Your task to perform on an android device: Open the web browser Image 0: 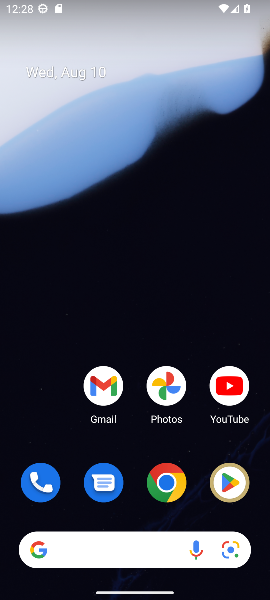
Step 0: click (174, 487)
Your task to perform on an android device: Open the web browser Image 1: 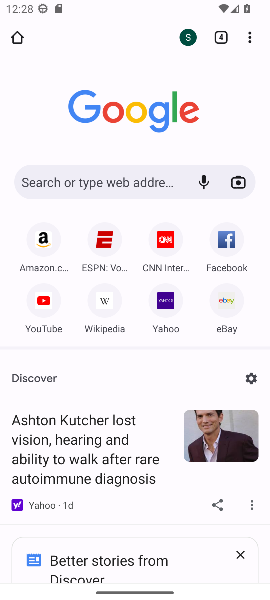
Step 1: task complete